Your task to perform on an android device: change your default location settings in chrome Image 0: 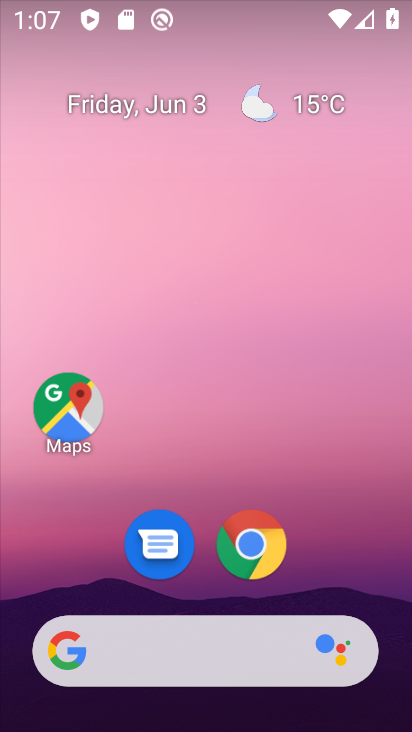
Step 0: click (227, 546)
Your task to perform on an android device: change your default location settings in chrome Image 1: 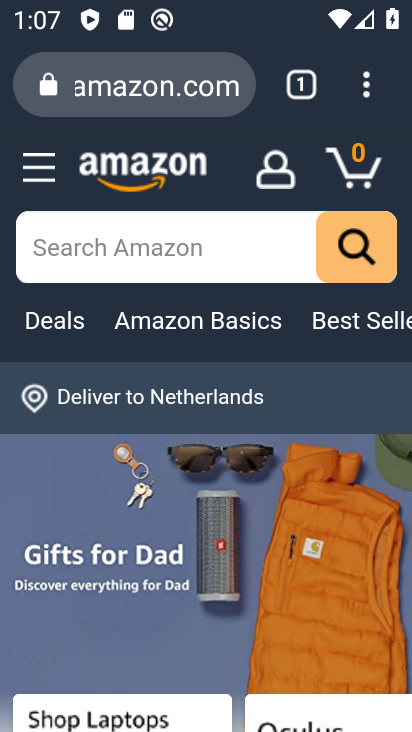
Step 1: click (375, 84)
Your task to perform on an android device: change your default location settings in chrome Image 2: 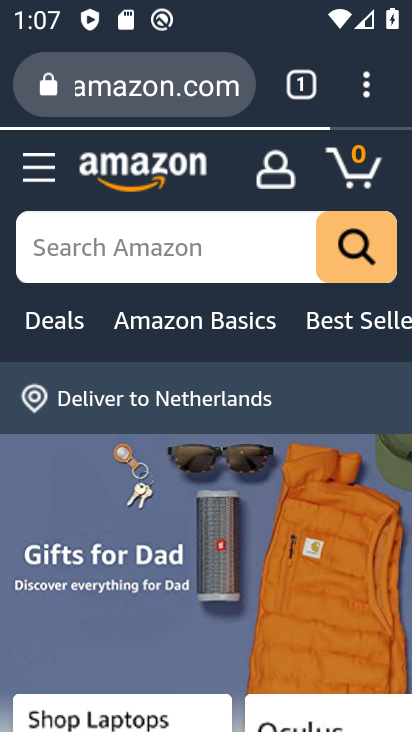
Step 2: drag from (372, 89) to (145, 607)
Your task to perform on an android device: change your default location settings in chrome Image 3: 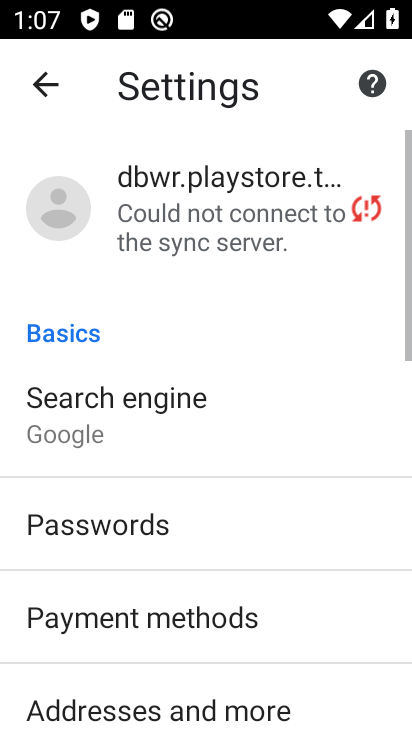
Step 3: click (126, 412)
Your task to perform on an android device: change your default location settings in chrome Image 4: 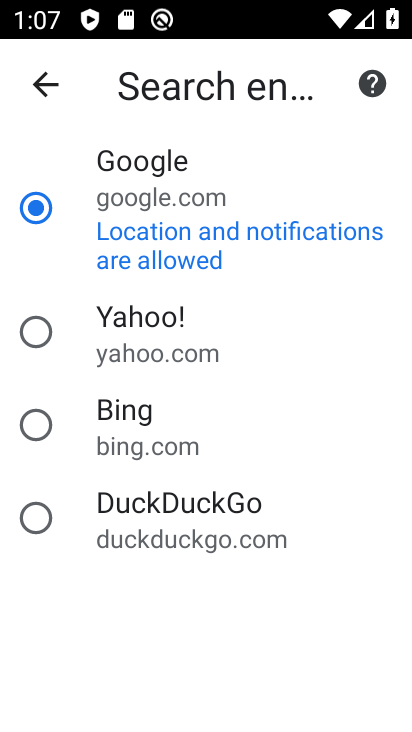
Step 4: click (28, 93)
Your task to perform on an android device: change your default location settings in chrome Image 5: 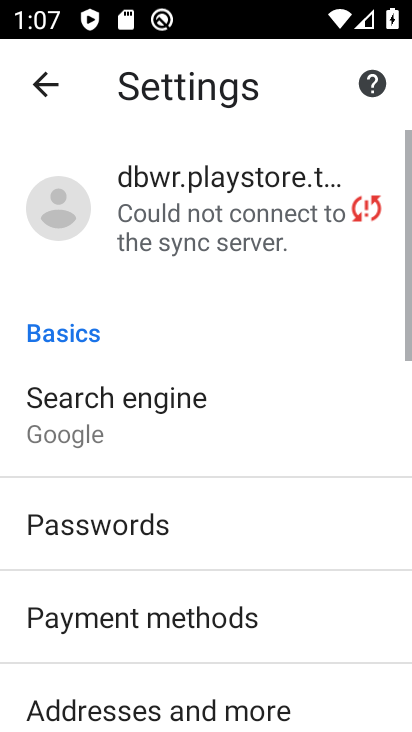
Step 5: drag from (104, 458) to (69, 22)
Your task to perform on an android device: change your default location settings in chrome Image 6: 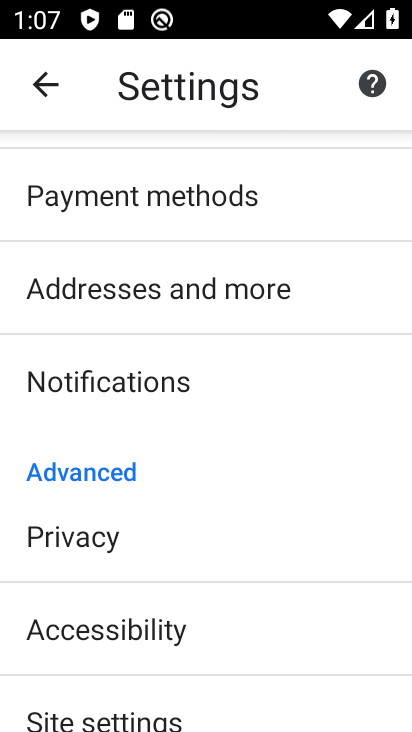
Step 6: click (114, 704)
Your task to perform on an android device: change your default location settings in chrome Image 7: 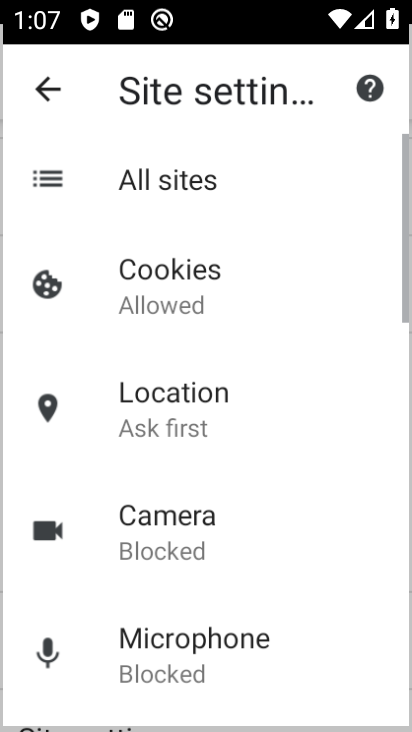
Step 7: drag from (114, 704) to (112, 314)
Your task to perform on an android device: change your default location settings in chrome Image 8: 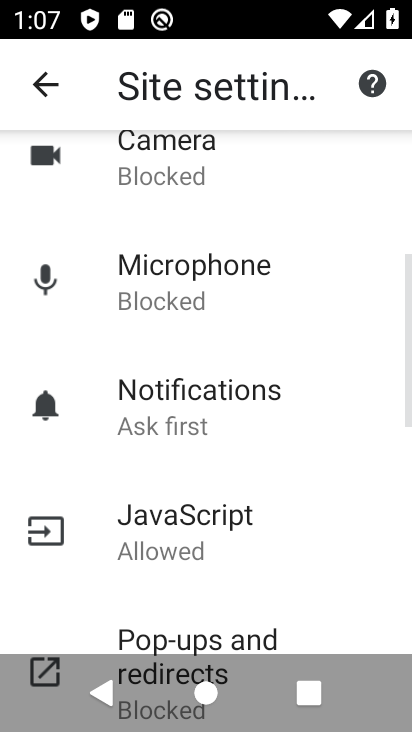
Step 8: drag from (141, 187) to (143, 475)
Your task to perform on an android device: change your default location settings in chrome Image 9: 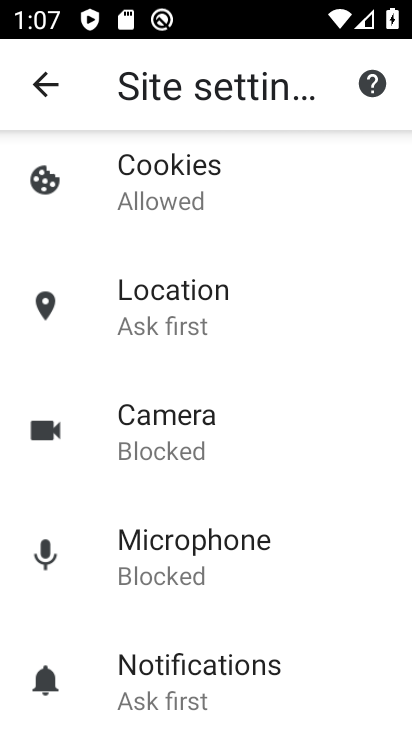
Step 9: click (167, 321)
Your task to perform on an android device: change your default location settings in chrome Image 10: 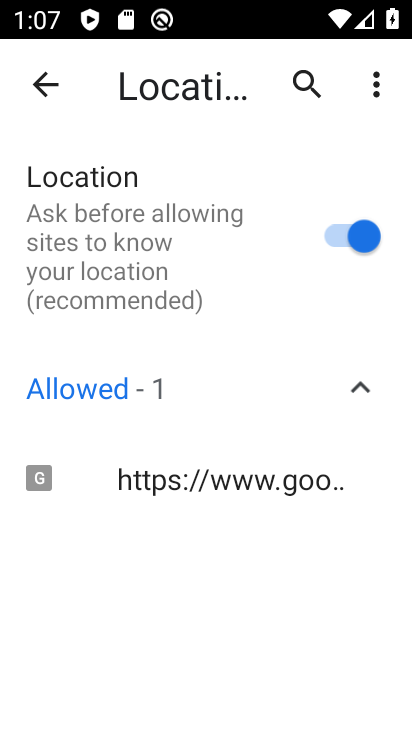
Step 10: task complete